Your task to perform on an android device: Search for seafood restaurants on Google Maps Image 0: 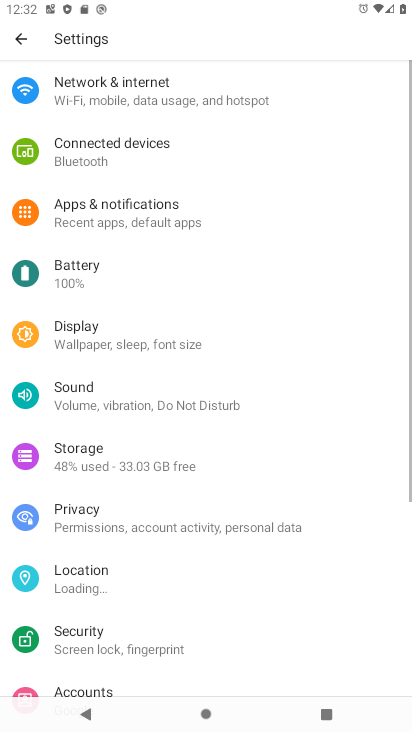
Step 0: press home button
Your task to perform on an android device: Search for seafood restaurants on Google Maps Image 1: 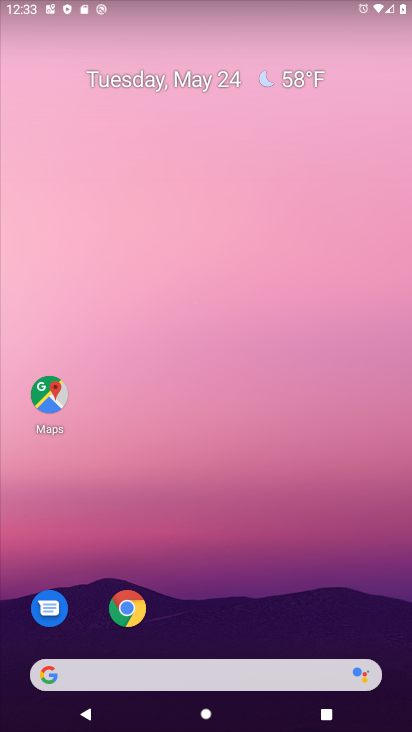
Step 1: drag from (269, 677) to (256, 70)
Your task to perform on an android device: Search for seafood restaurants on Google Maps Image 2: 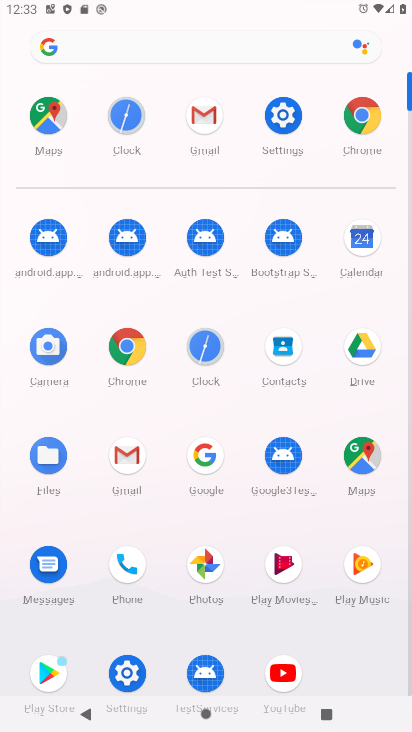
Step 2: click (362, 450)
Your task to perform on an android device: Search for seafood restaurants on Google Maps Image 3: 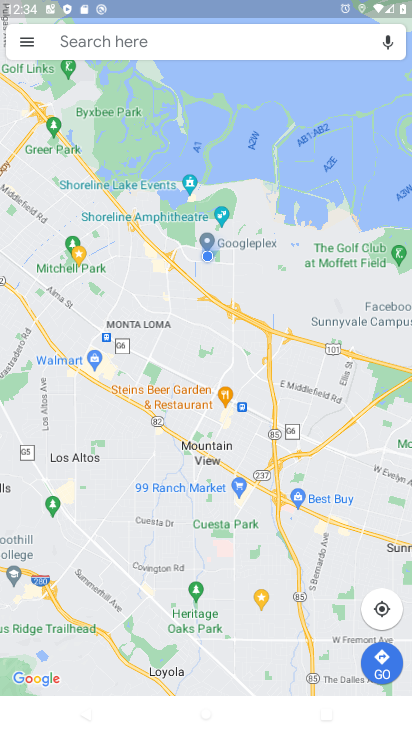
Step 3: click (155, 44)
Your task to perform on an android device: Search for seafood restaurants on Google Maps Image 4: 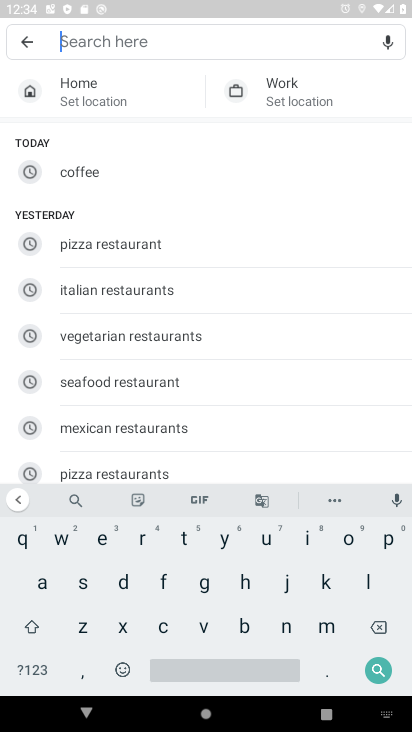
Step 4: click (108, 390)
Your task to perform on an android device: Search for seafood restaurants on Google Maps Image 5: 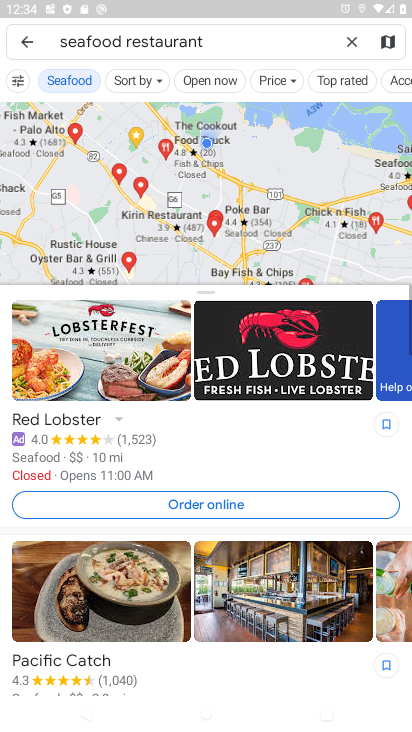
Step 5: task complete